Your task to perform on an android device: Open notification settings Image 0: 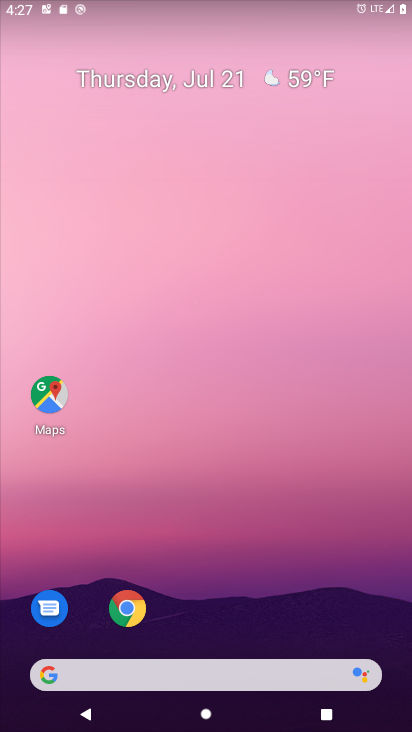
Step 0: drag from (314, 599) to (305, 110)
Your task to perform on an android device: Open notification settings Image 1: 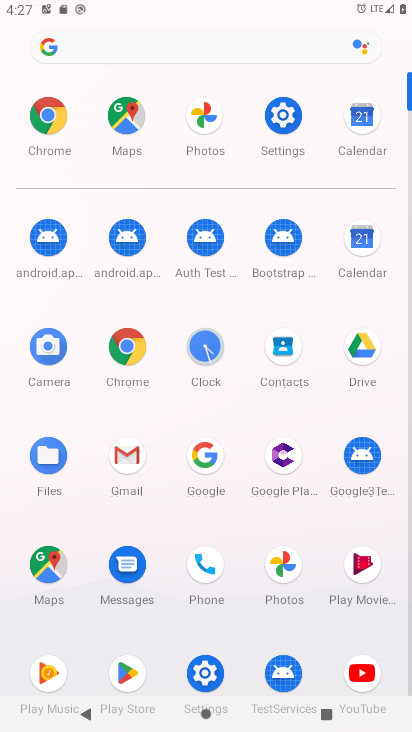
Step 1: click (282, 120)
Your task to perform on an android device: Open notification settings Image 2: 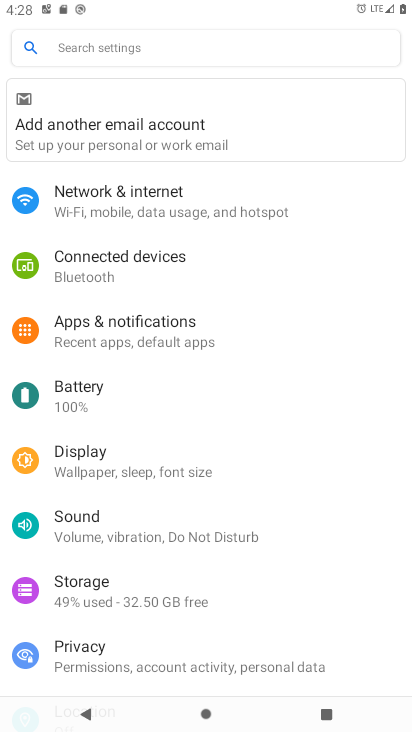
Step 2: click (173, 330)
Your task to perform on an android device: Open notification settings Image 3: 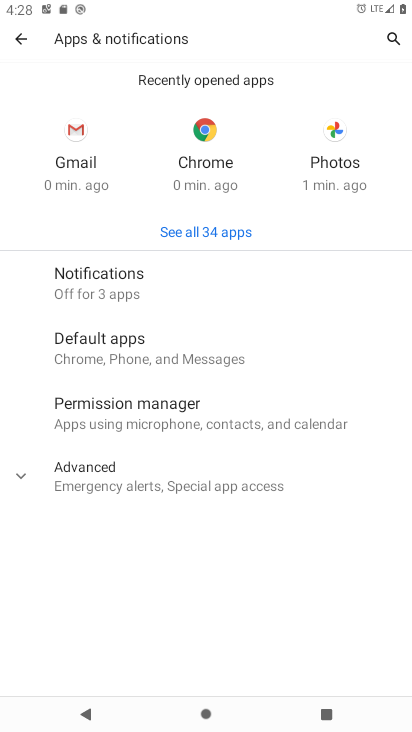
Step 3: click (172, 291)
Your task to perform on an android device: Open notification settings Image 4: 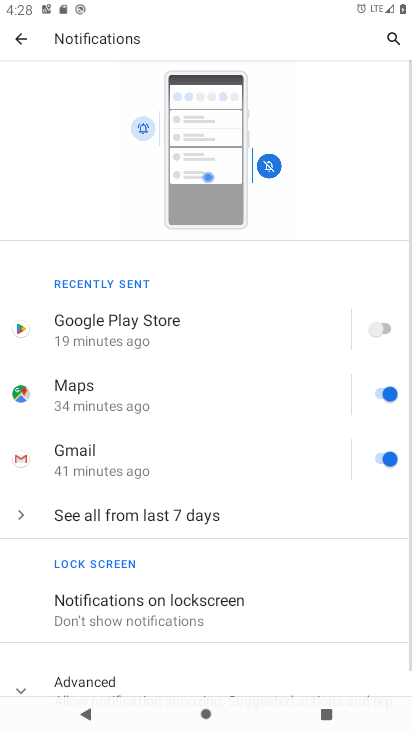
Step 4: task complete